Your task to perform on an android device: add a contact Image 0: 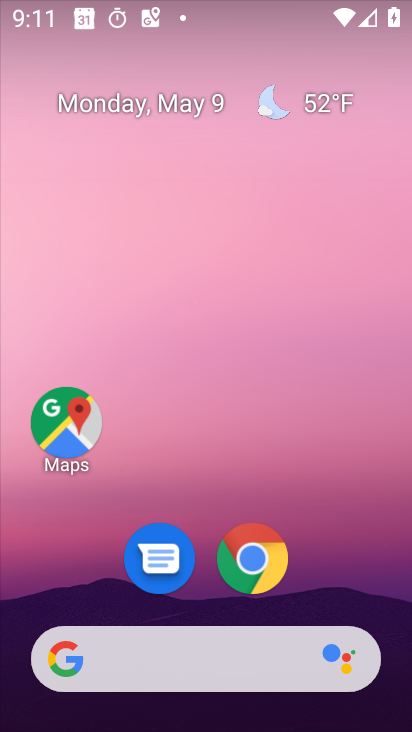
Step 0: drag from (176, 520) to (232, 9)
Your task to perform on an android device: add a contact Image 1: 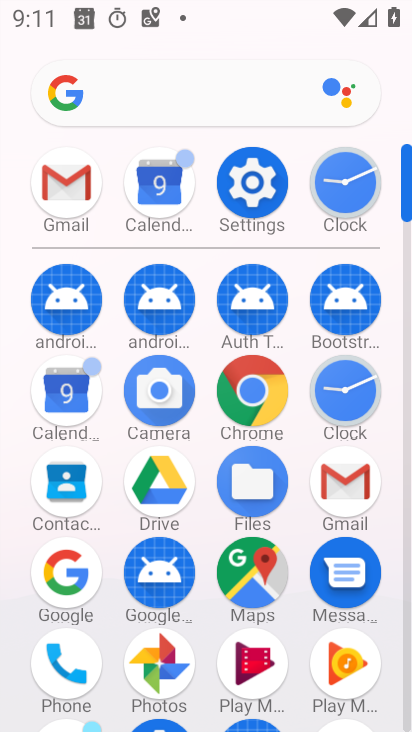
Step 1: click (59, 489)
Your task to perform on an android device: add a contact Image 2: 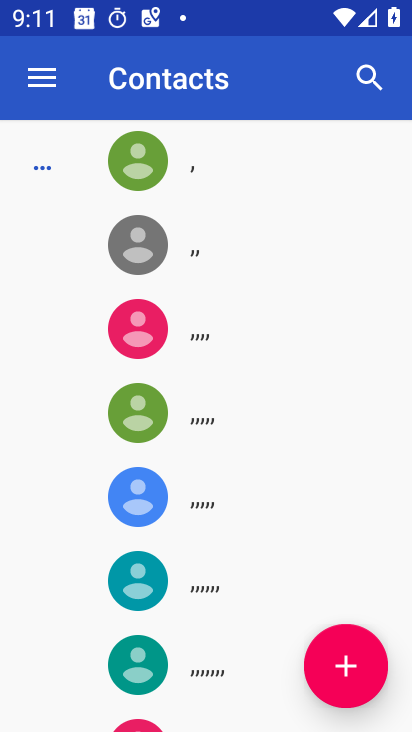
Step 2: click (312, 655)
Your task to perform on an android device: add a contact Image 3: 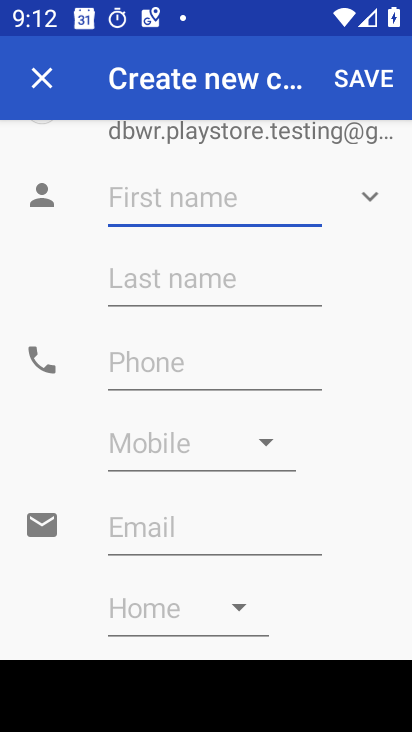
Step 3: click (134, 207)
Your task to perform on an android device: add a contact Image 4: 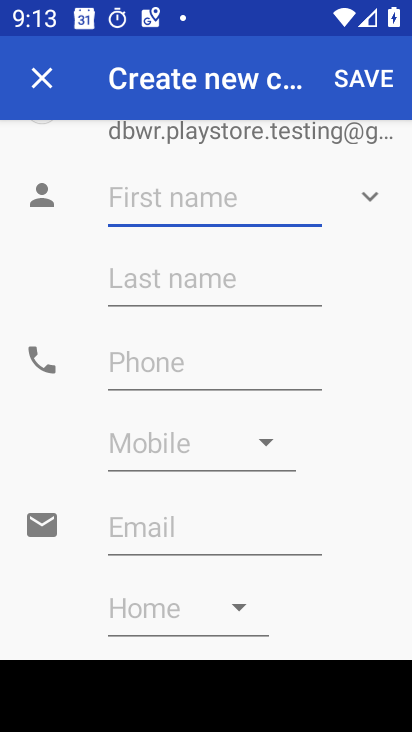
Step 4: type "vhv"
Your task to perform on an android device: add a contact Image 5: 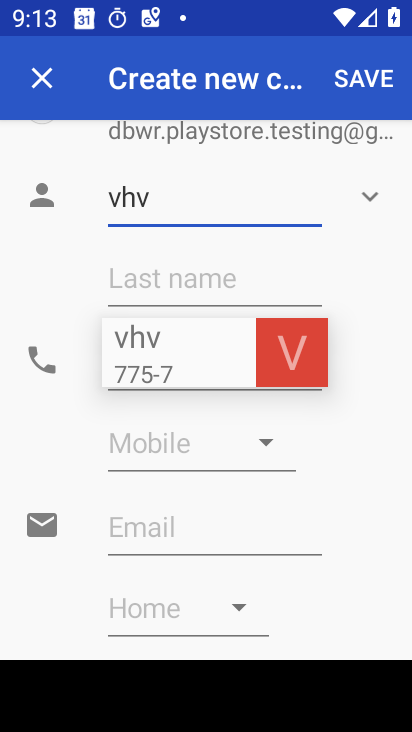
Step 5: click (192, 354)
Your task to perform on an android device: add a contact Image 6: 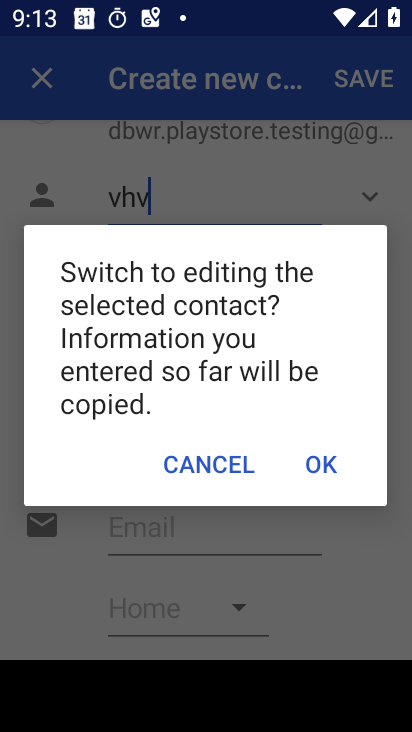
Step 6: click (305, 474)
Your task to perform on an android device: add a contact Image 7: 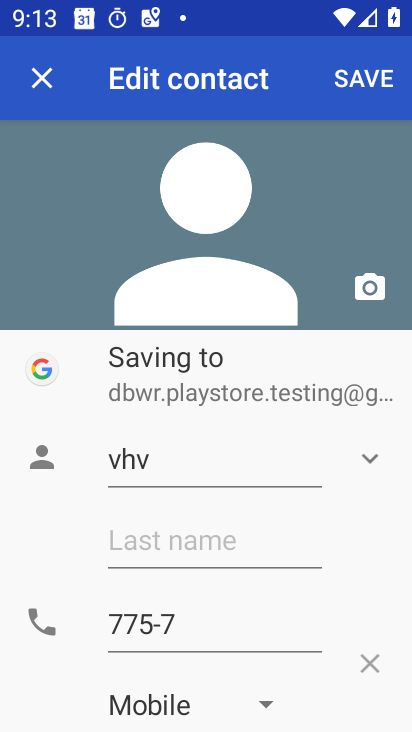
Step 7: click (360, 76)
Your task to perform on an android device: add a contact Image 8: 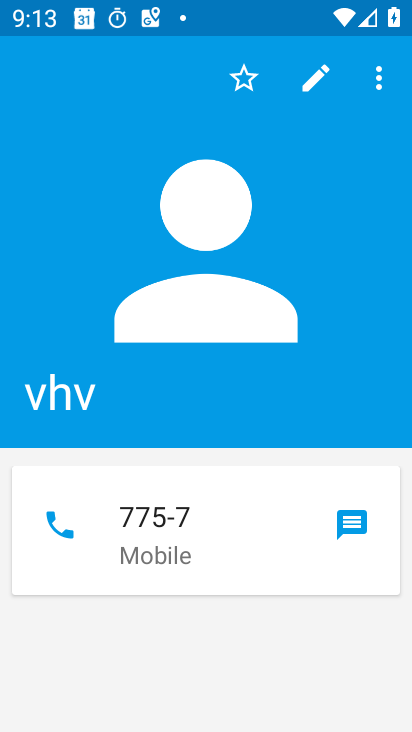
Step 8: task complete